Your task to perform on an android device: toggle notification dots Image 0: 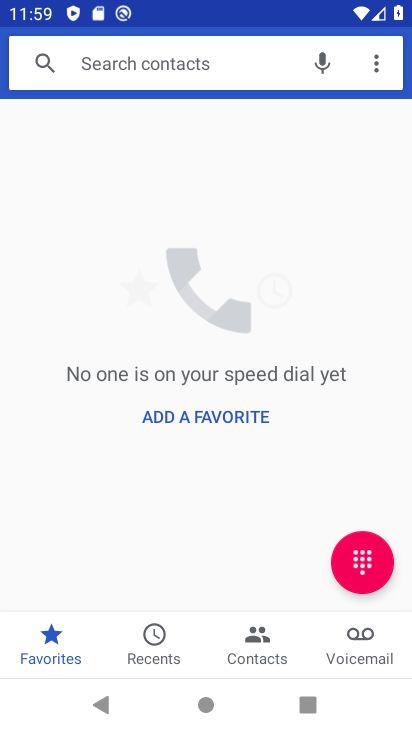
Step 0: press home button
Your task to perform on an android device: toggle notification dots Image 1: 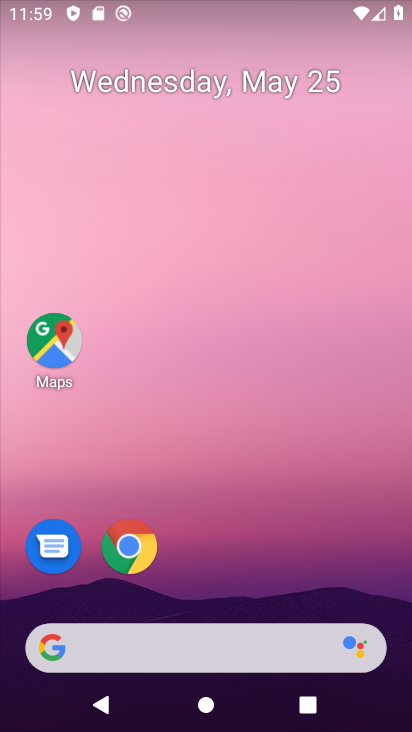
Step 1: click (238, 652)
Your task to perform on an android device: toggle notification dots Image 2: 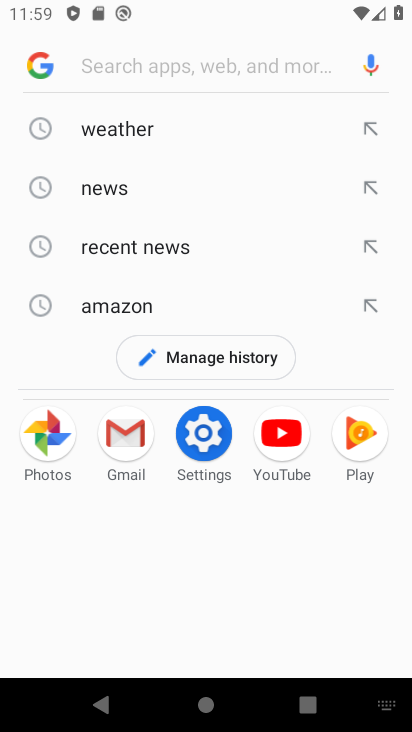
Step 2: press home button
Your task to perform on an android device: toggle notification dots Image 3: 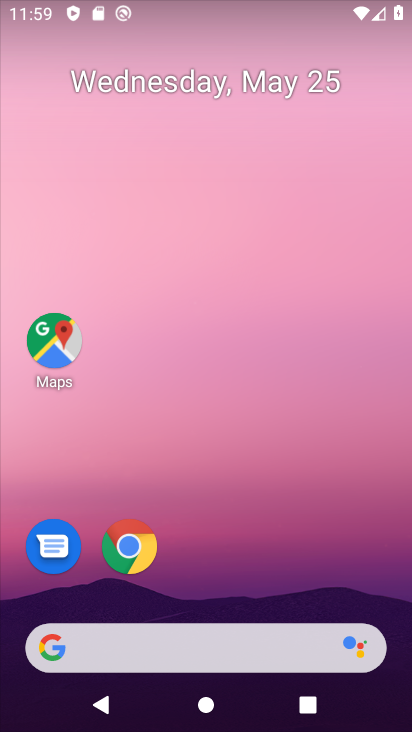
Step 3: drag from (156, 702) to (207, 139)
Your task to perform on an android device: toggle notification dots Image 4: 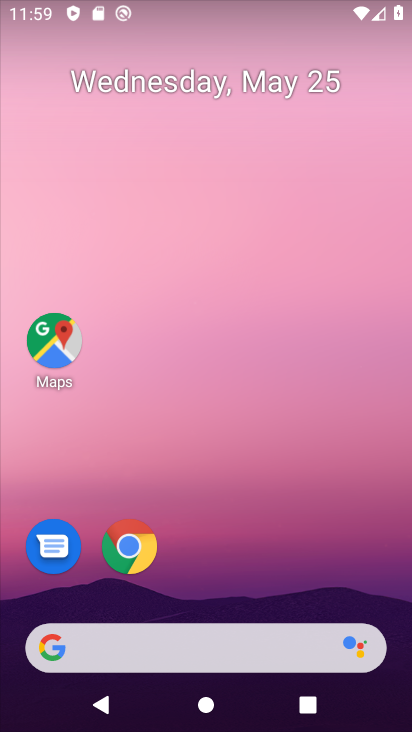
Step 4: drag from (146, 717) to (306, 118)
Your task to perform on an android device: toggle notification dots Image 5: 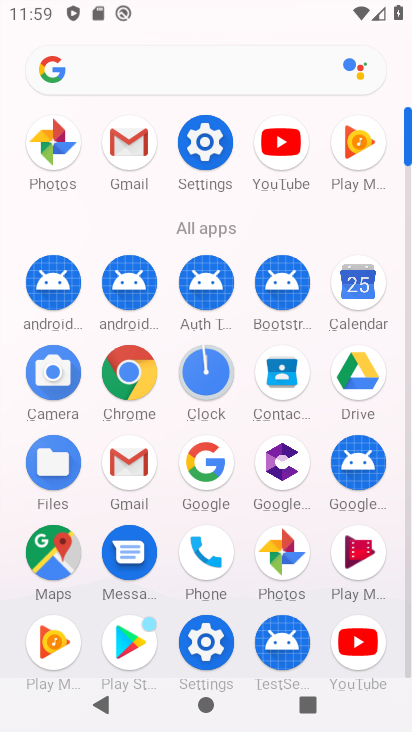
Step 5: click (204, 139)
Your task to perform on an android device: toggle notification dots Image 6: 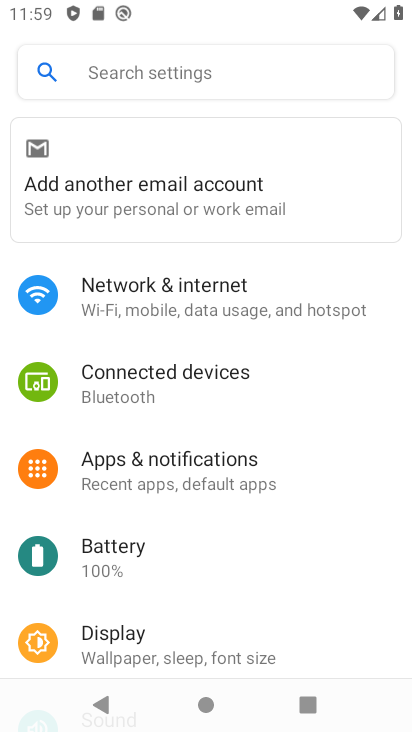
Step 6: click (245, 467)
Your task to perform on an android device: toggle notification dots Image 7: 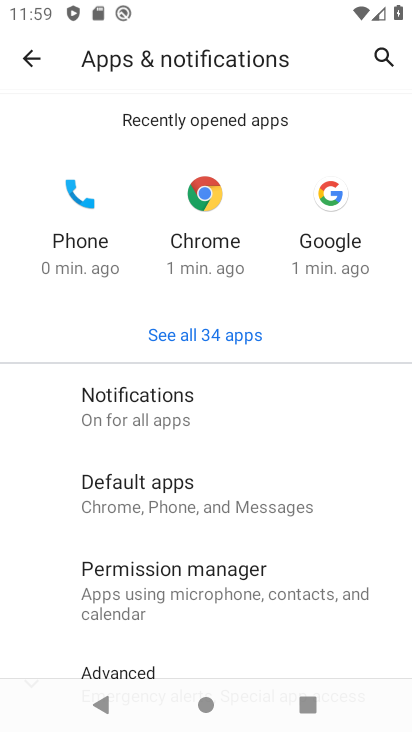
Step 7: click (236, 416)
Your task to perform on an android device: toggle notification dots Image 8: 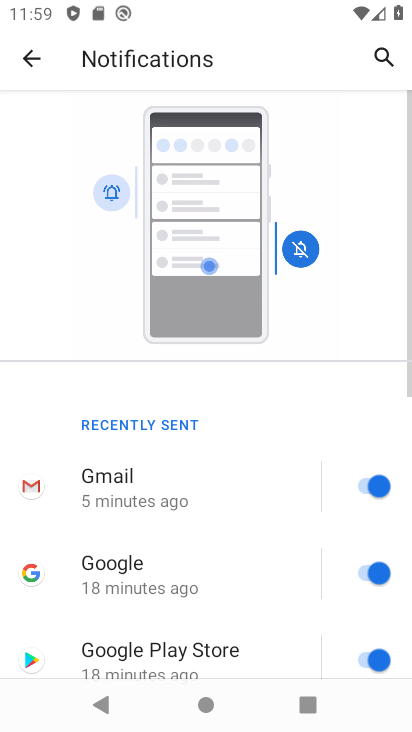
Step 8: drag from (204, 608) to (309, 18)
Your task to perform on an android device: toggle notification dots Image 9: 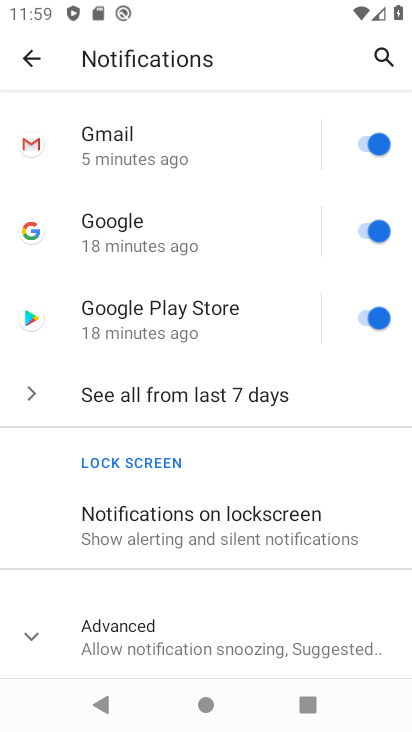
Step 9: click (307, 639)
Your task to perform on an android device: toggle notification dots Image 10: 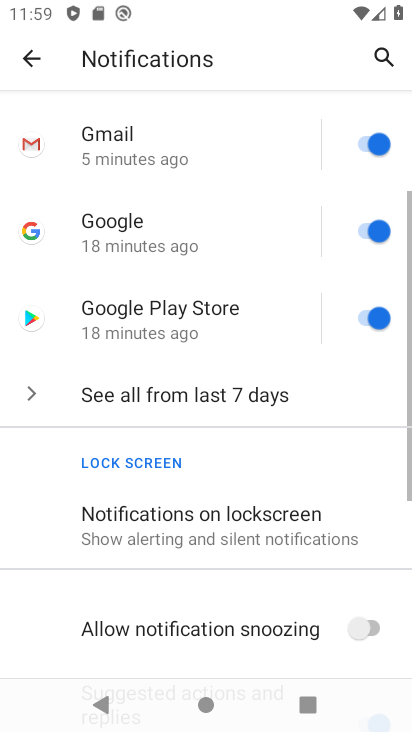
Step 10: drag from (299, 550) to (359, 96)
Your task to perform on an android device: toggle notification dots Image 11: 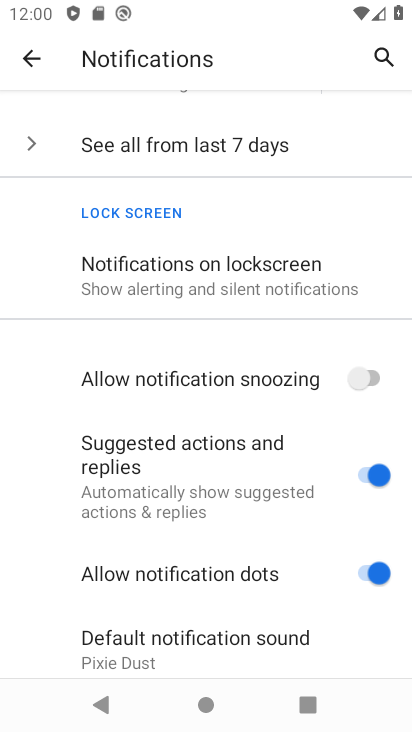
Step 11: click (376, 574)
Your task to perform on an android device: toggle notification dots Image 12: 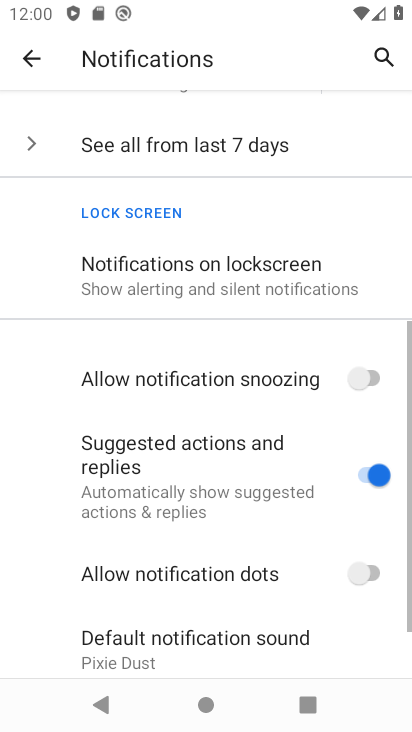
Step 12: task complete